Your task to perform on an android device: check data usage Image 0: 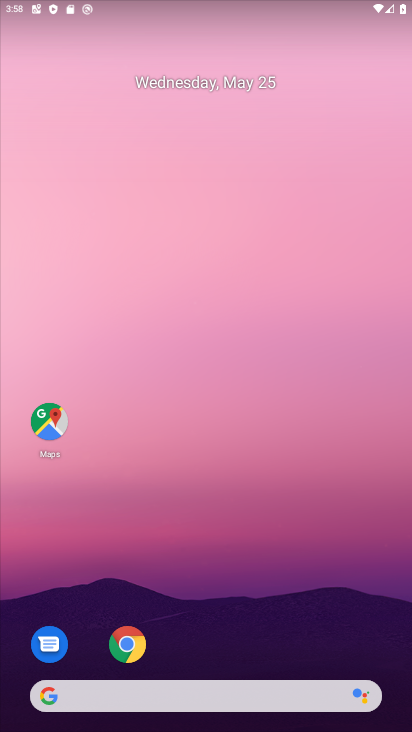
Step 0: drag from (203, 645) to (268, 20)
Your task to perform on an android device: check data usage Image 1: 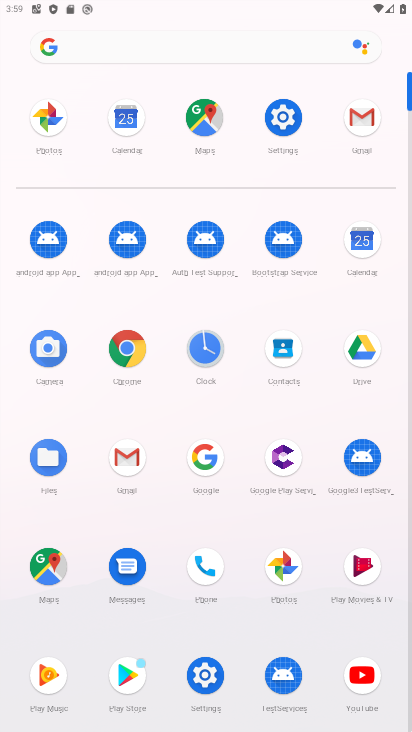
Step 1: click (279, 121)
Your task to perform on an android device: check data usage Image 2: 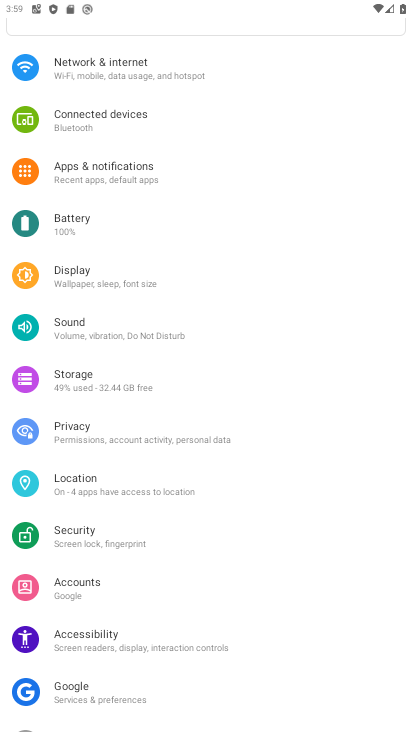
Step 2: click (100, 79)
Your task to perform on an android device: check data usage Image 3: 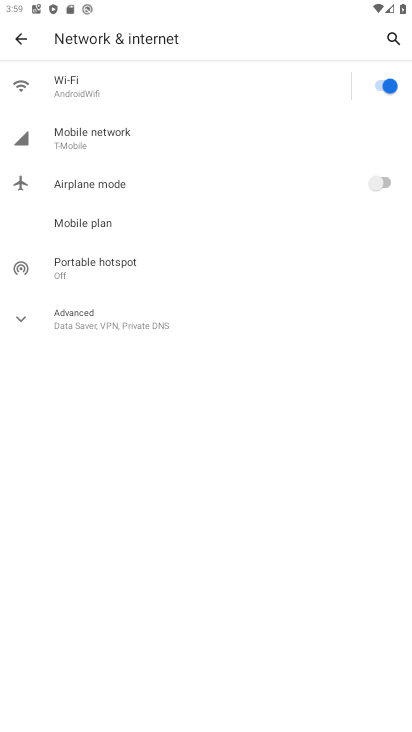
Step 3: click (70, 146)
Your task to perform on an android device: check data usage Image 4: 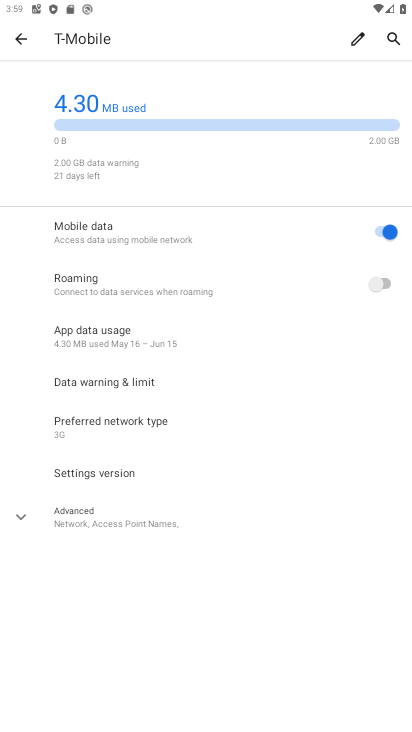
Step 4: click (104, 342)
Your task to perform on an android device: check data usage Image 5: 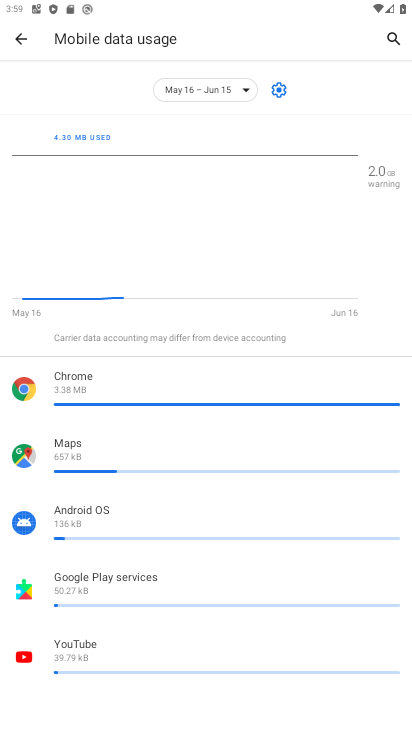
Step 5: task complete